Your task to perform on an android device: open wifi settings Image 0: 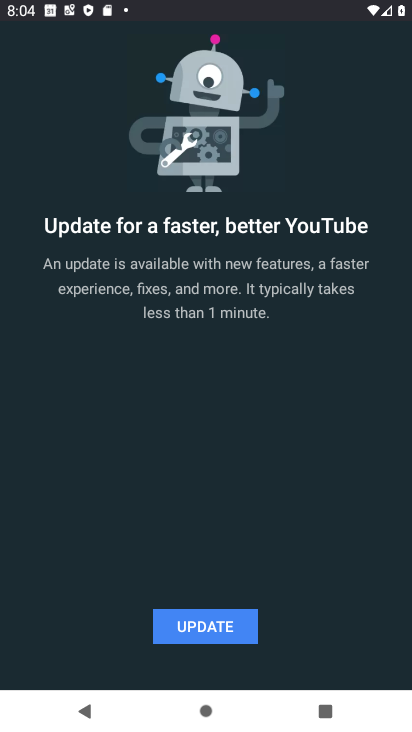
Step 0: press home button
Your task to perform on an android device: open wifi settings Image 1: 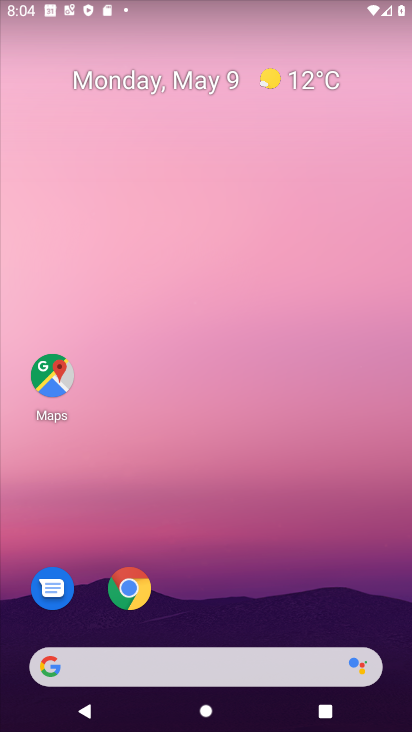
Step 1: drag from (205, 667) to (320, 81)
Your task to perform on an android device: open wifi settings Image 2: 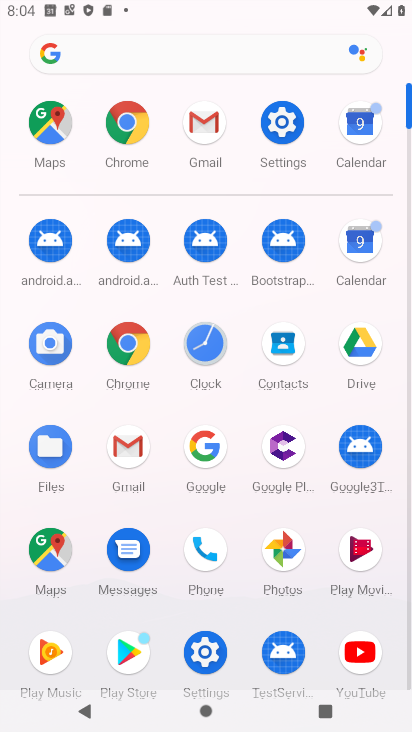
Step 2: click (287, 124)
Your task to perform on an android device: open wifi settings Image 3: 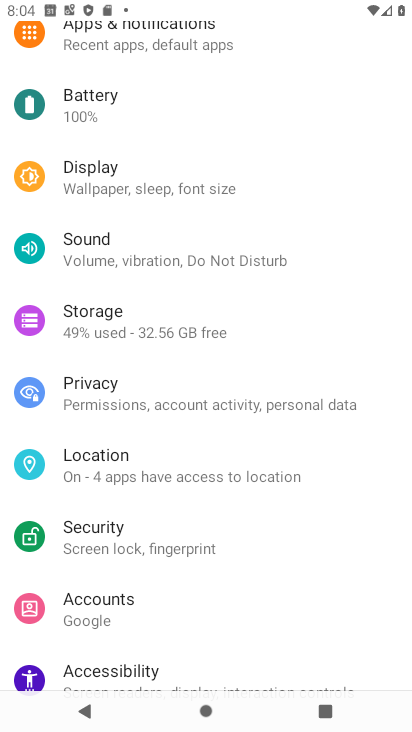
Step 3: drag from (245, 99) to (155, 549)
Your task to perform on an android device: open wifi settings Image 4: 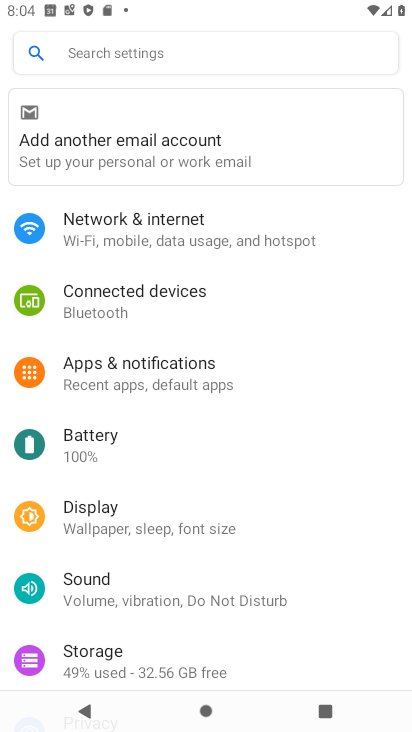
Step 4: click (174, 229)
Your task to perform on an android device: open wifi settings Image 5: 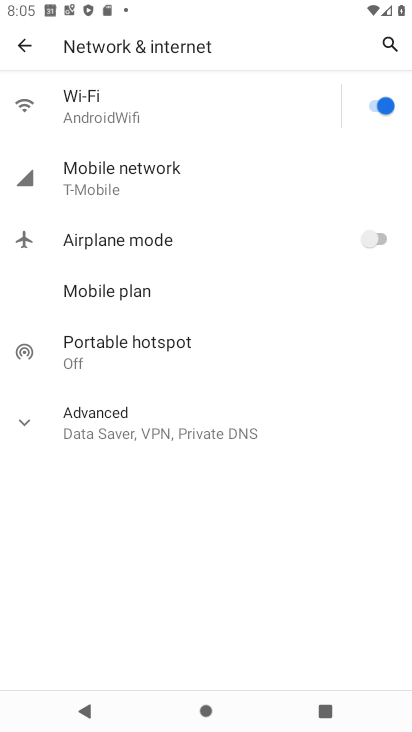
Step 5: click (118, 110)
Your task to perform on an android device: open wifi settings Image 6: 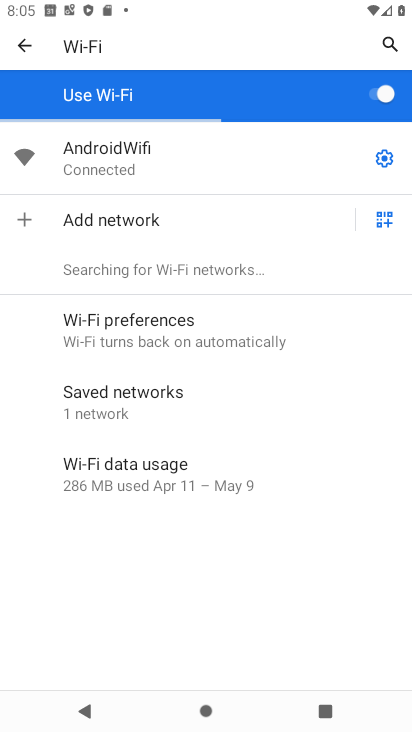
Step 6: task complete